Your task to perform on an android device: Go to Yahoo.com Image 0: 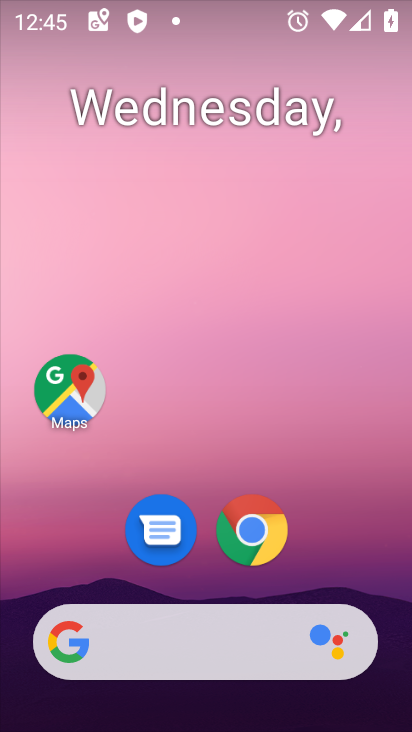
Step 0: click (251, 533)
Your task to perform on an android device: Go to Yahoo.com Image 1: 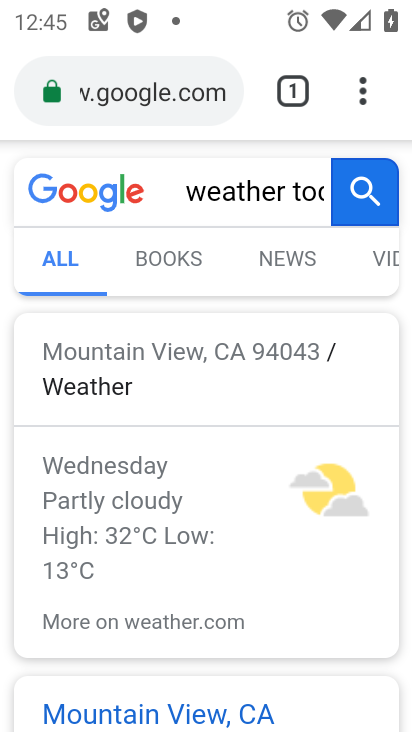
Step 1: click (150, 99)
Your task to perform on an android device: Go to Yahoo.com Image 2: 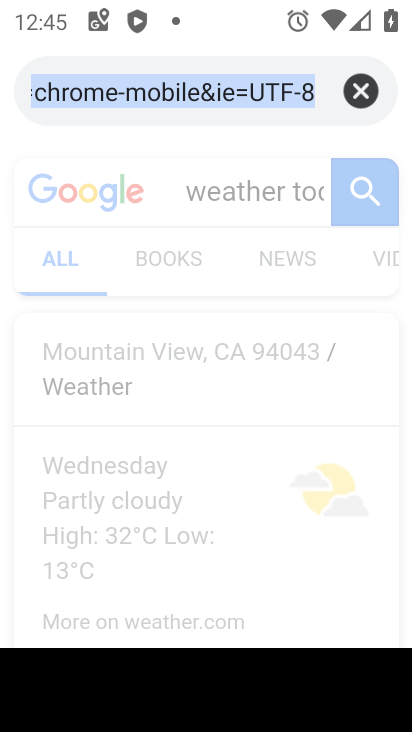
Step 2: type "yahoo.com"
Your task to perform on an android device: Go to Yahoo.com Image 3: 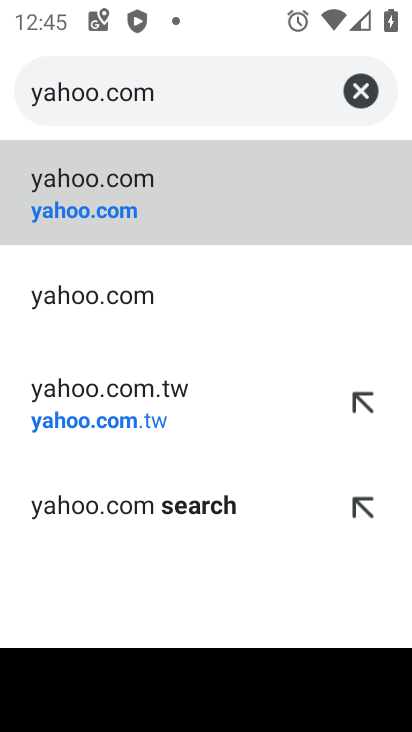
Step 3: click (98, 219)
Your task to perform on an android device: Go to Yahoo.com Image 4: 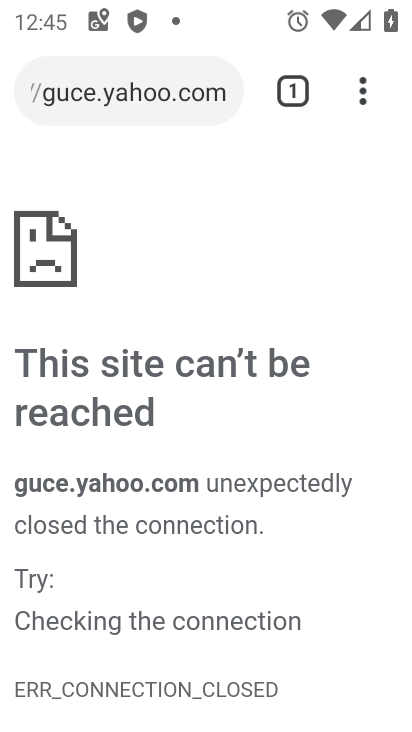
Step 4: task complete